Your task to perform on an android device: Is it going to rain tomorrow? Image 0: 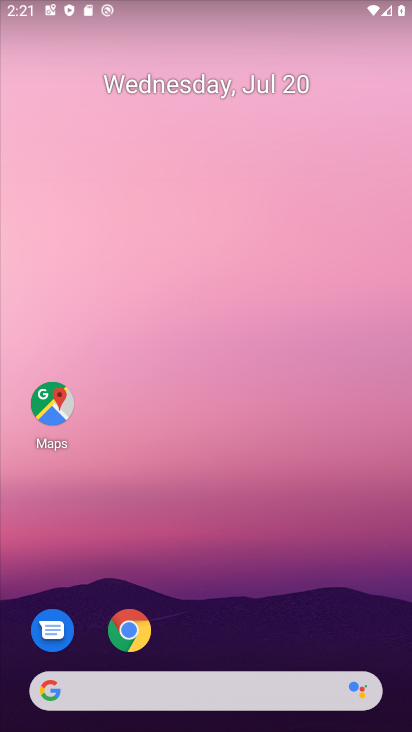
Step 0: click (234, 690)
Your task to perform on an android device: Is it going to rain tomorrow? Image 1: 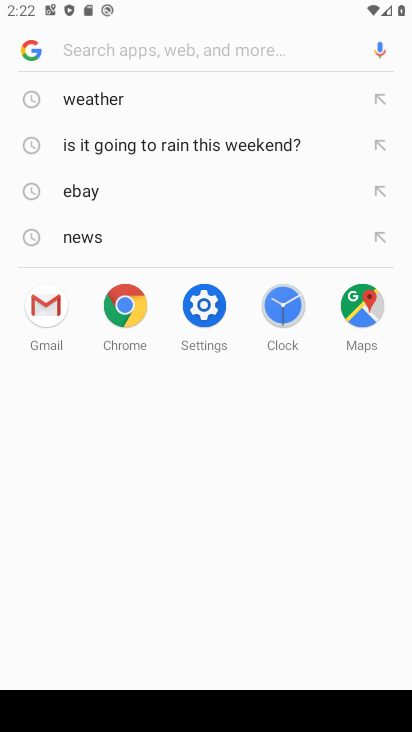
Step 1: click (114, 104)
Your task to perform on an android device: Is it going to rain tomorrow? Image 2: 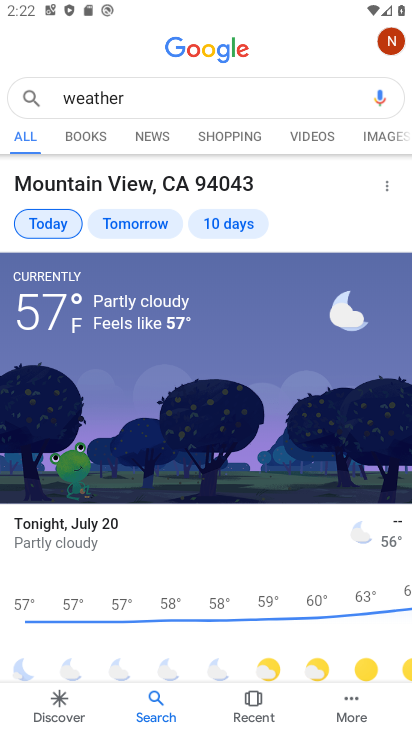
Step 2: click (143, 222)
Your task to perform on an android device: Is it going to rain tomorrow? Image 3: 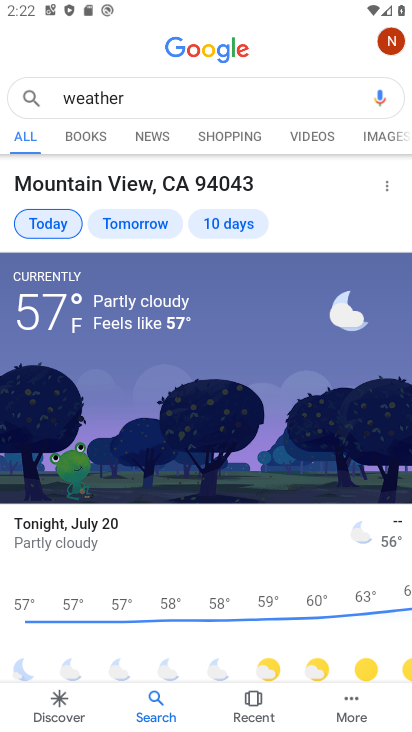
Step 3: task complete